Your task to perform on an android device: turn on bluetooth scan Image 0: 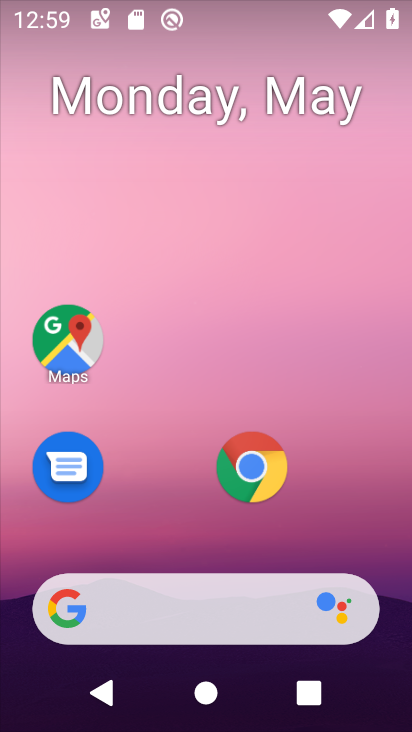
Step 0: drag from (201, 559) to (221, 132)
Your task to perform on an android device: turn on bluetooth scan Image 1: 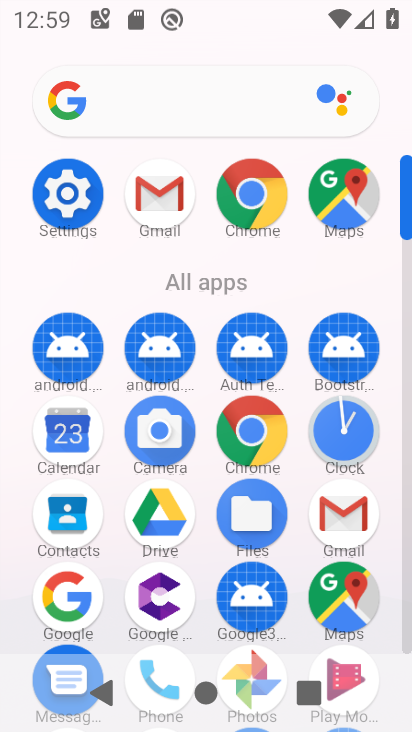
Step 1: click (228, 170)
Your task to perform on an android device: turn on bluetooth scan Image 2: 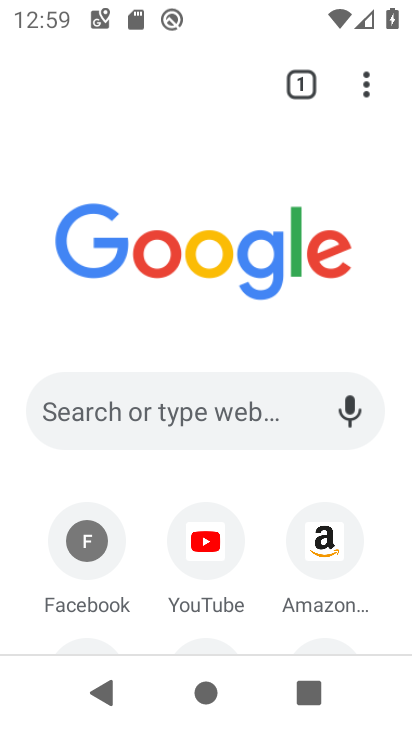
Step 2: drag from (256, 620) to (263, 66)
Your task to perform on an android device: turn on bluetooth scan Image 3: 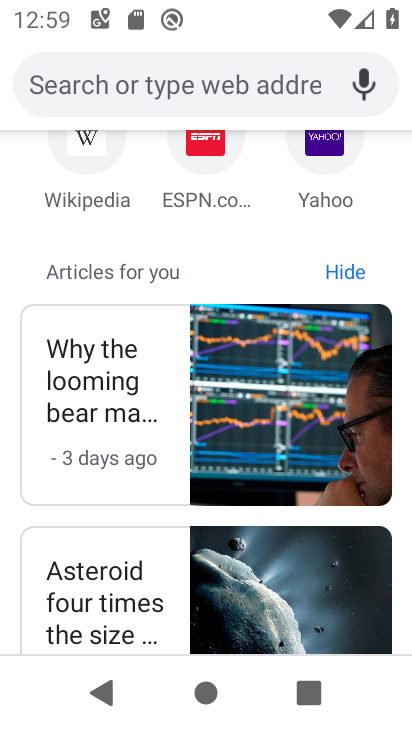
Step 3: click (240, 77)
Your task to perform on an android device: turn on bluetooth scan Image 4: 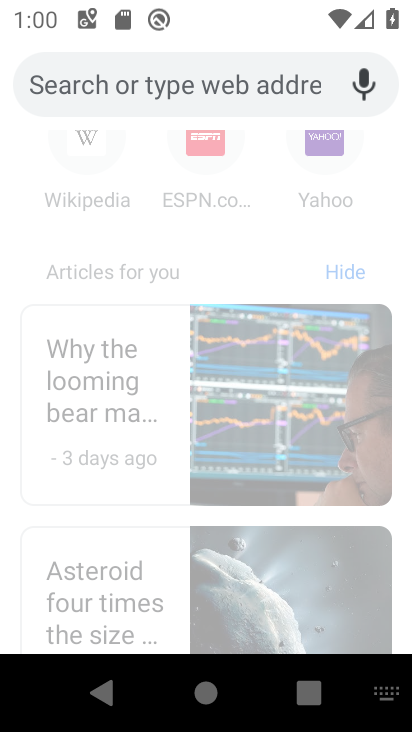
Step 4: drag from (263, 158) to (292, 527)
Your task to perform on an android device: turn on bluetooth scan Image 5: 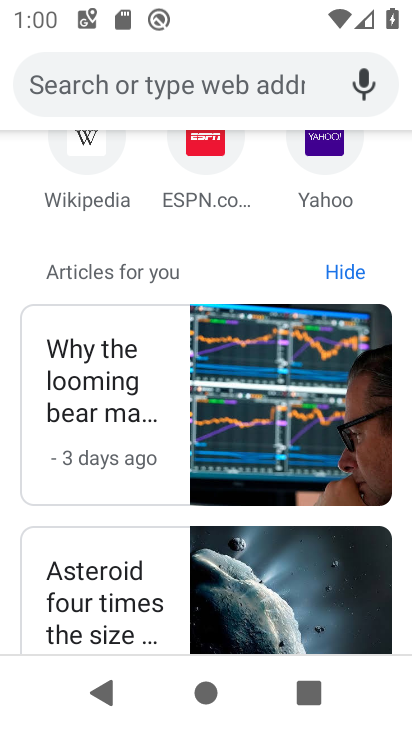
Step 5: click (156, 82)
Your task to perform on an android device: turn on bluetooth scan Image 6: 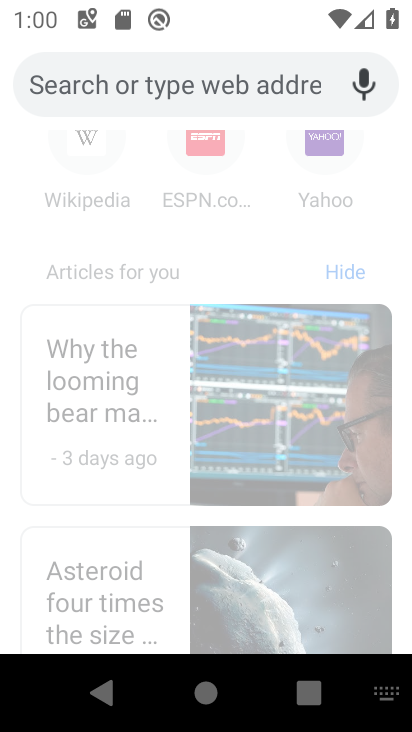
Step 6: click (236, 237)
Your task to perform on an android device: turn on bluetooth scan Image 7: 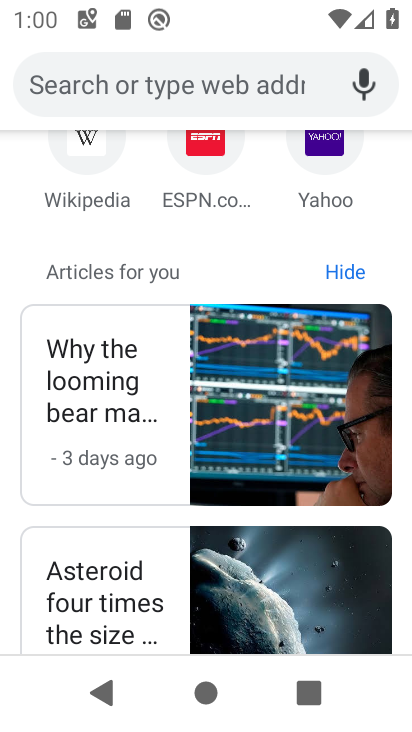
Step 7: press home button
Your task to perform on an android device: turn on bluetooth scan Image 8: 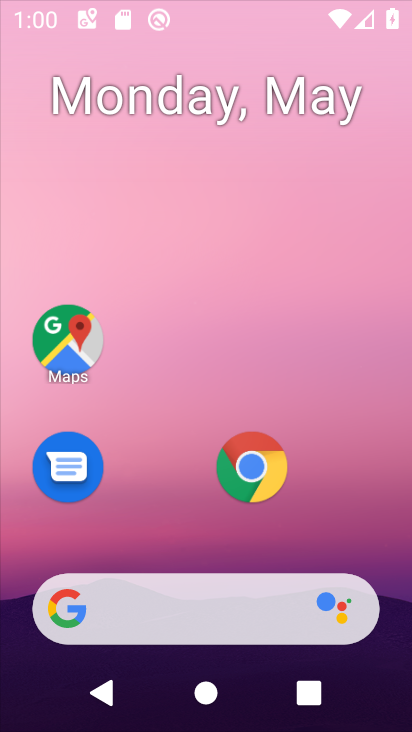
Step 8: drag from (134, 632) to (289, 72)
Your task to perform on an android device: turn on bluetooth scan Image 9: 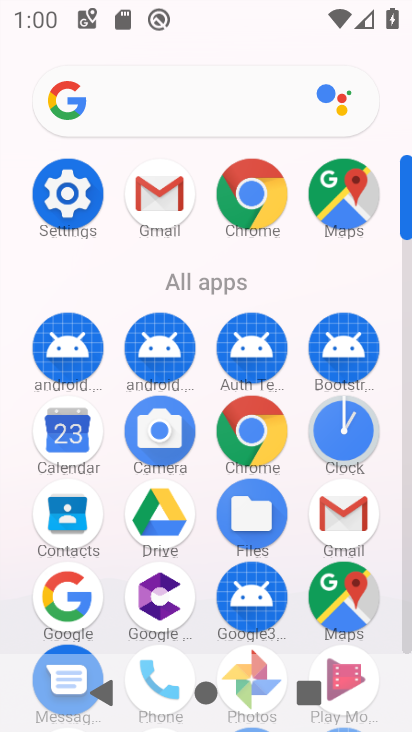
Step 9: click (80, 201)
Your task to perform on an android device: turn on bluetooth scan Image 10: 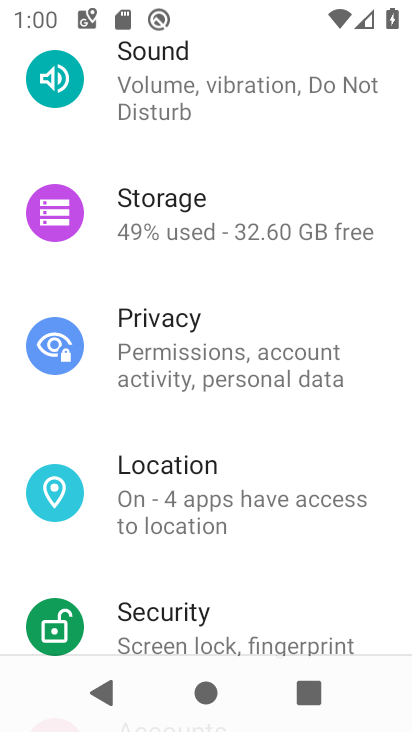
Step 10: drag from (247, 548) to (284, 216)
Your task to perform on an android device: turn on bluetooth scan Image 11: 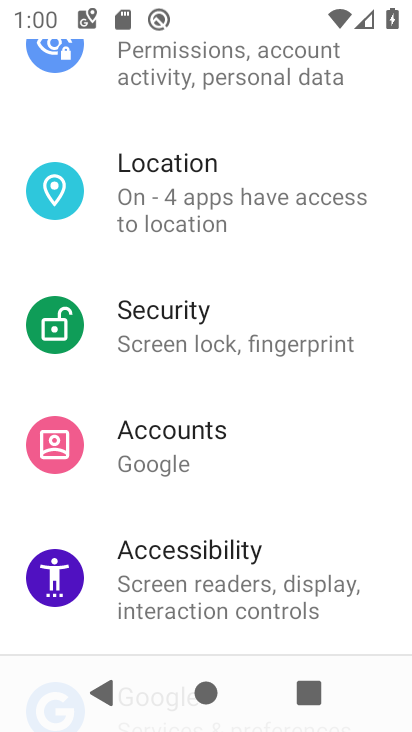
Step 11: drag from (284, 205) to (315, 541)
Your task to perform on an android device: turn on bluetooth scan Image 12: 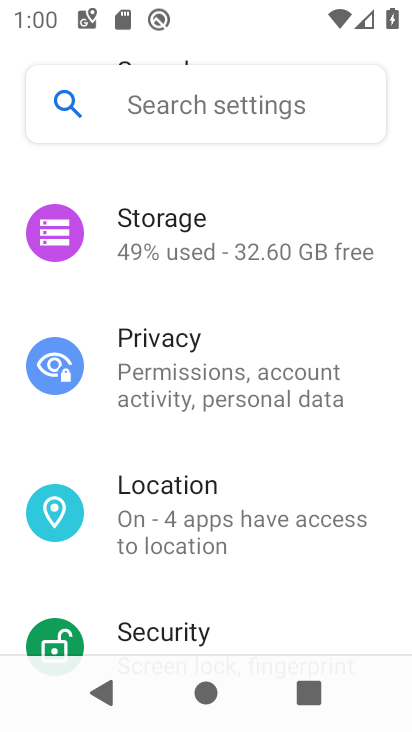
Step 12: drag from (235, 299) to (322, 685)
Your task to perform on an android device: turn on bluetooth scan Image 13: 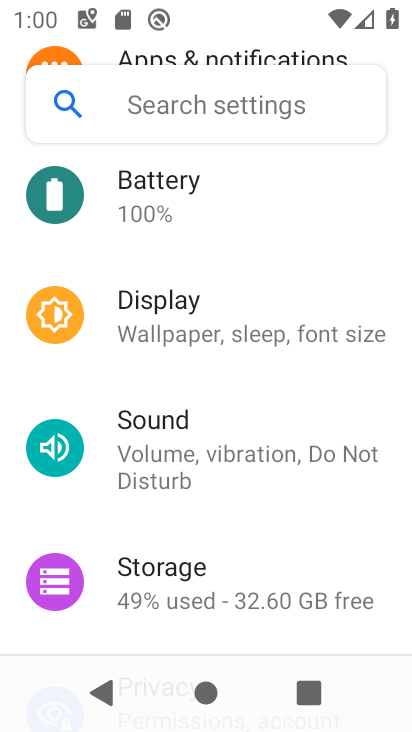
Step 13: drag from (239, 532) to (317, 125)
Your task to perform on an android device: turn on bluetooth scan Image 14: 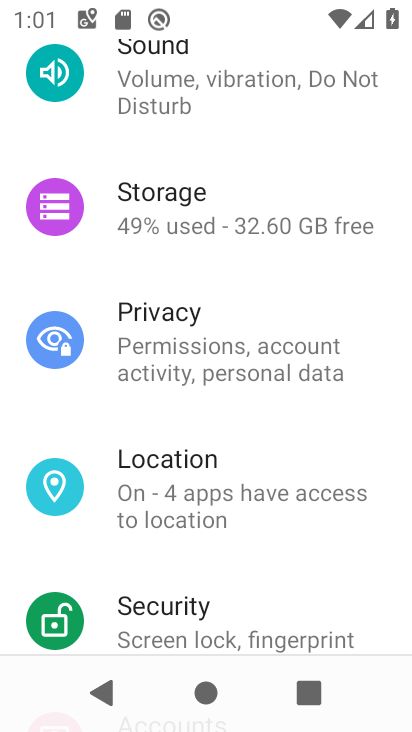
Step 14: click (180, 492)
Your task to perform on an android device: turn on bluetooth scan Image 15: 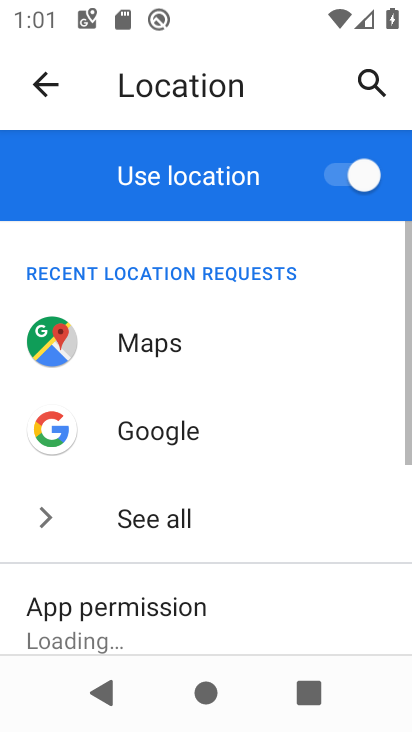
Step 15: drag from (203, 513) to (271, 235)
Your task to perform on an android device: turn on bluetooth scan Image 16: 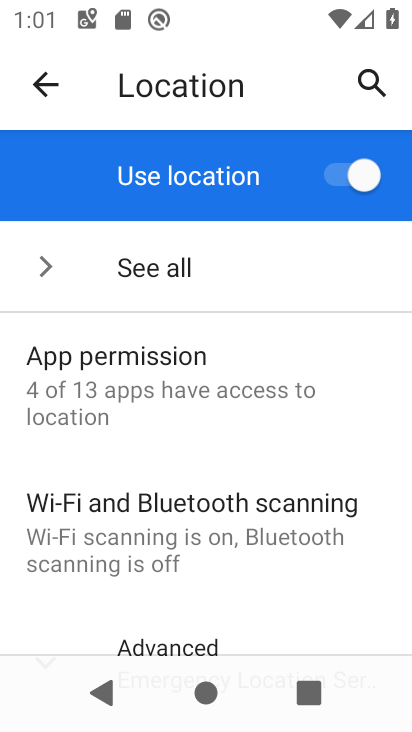
Step 16: click (173, 536)
Your task to perform on an android device: turn on bluetooth scan Image 17: 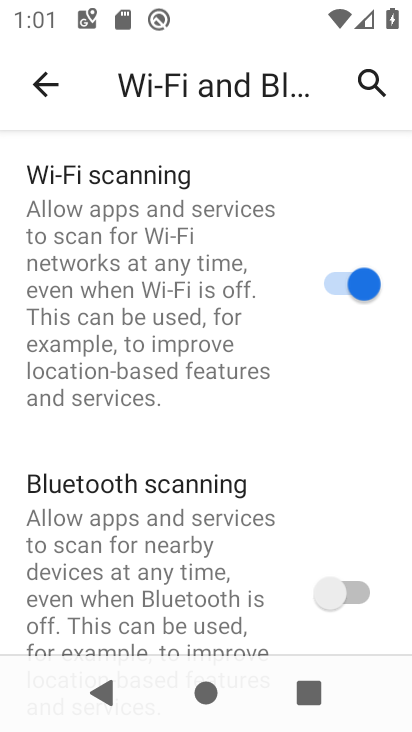
Step 17: click (279, 558)
Your task to perform on an android device: turn on bluetooth scan Image 18: 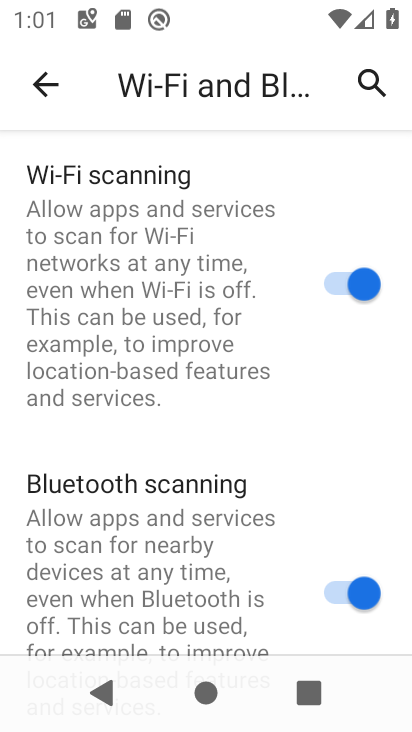
Step 18: task complete